Your task to perform on an android device: turn off data saver in the chrome app Image 0: 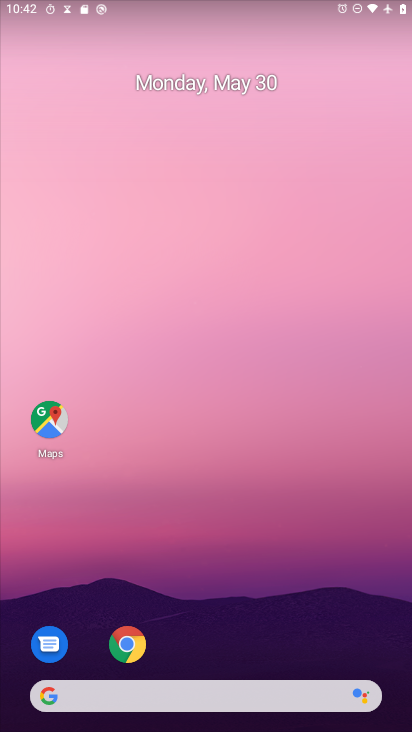
Step 0: click (129, 647)
Your task to perform on an android device: turn off data saver in the chrome app Image 1: 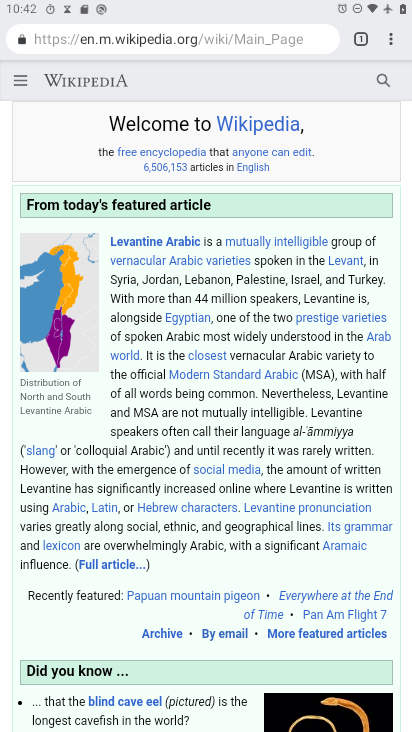
Step 1: click (385, 34)
Your task to perform on an android device: turn off data saver in the chrome app Image 2: 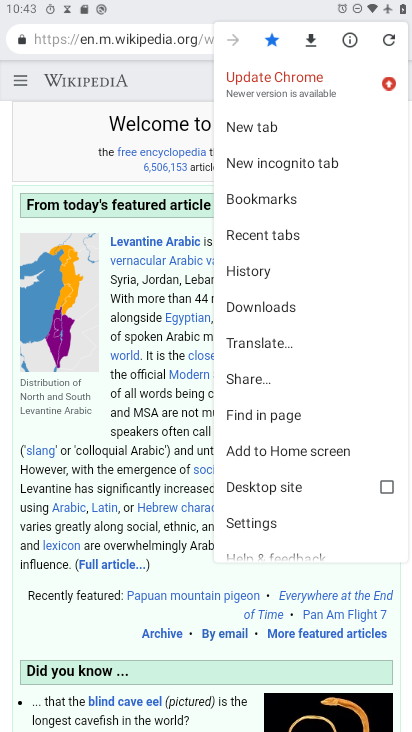
Step 2: click (275, 525)
Your task to perform on an android device: turn off data saver in the chrome app Image 3: 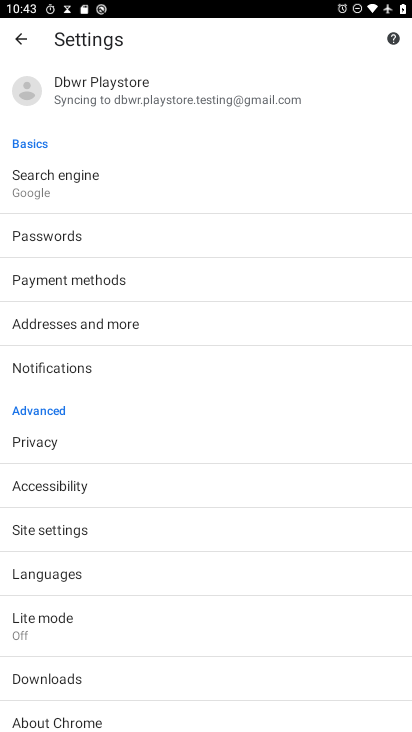
Step 3: click (84, 623)
Your task to perform on an android device: turn off data saver in the chrome app Image 4: 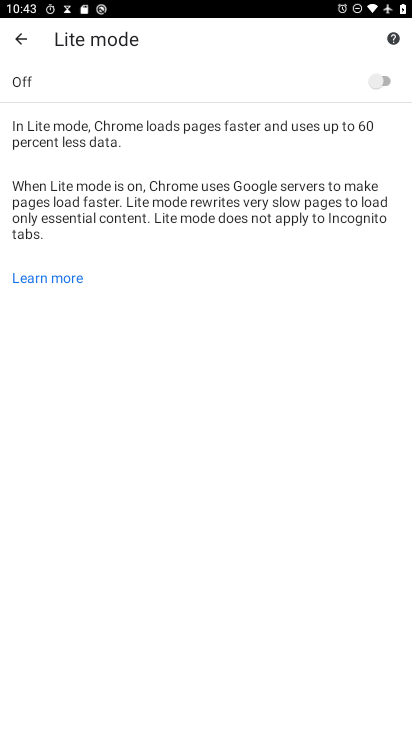
Step 4: task complete